Your task to perform on an android device: turn off location Image 0: 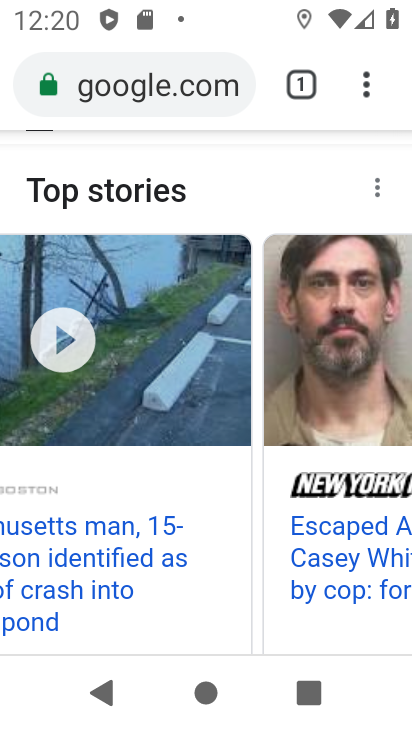
Step 0: press home button
Your task to perform on an android device: turn off location Image 1: 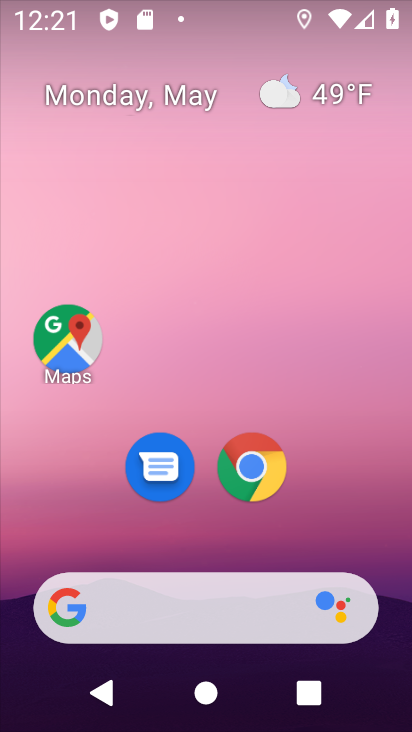
Step 1: drag from (378, 525) to (349, 121)
Your task to perform on an android device: turn off location Image 2: 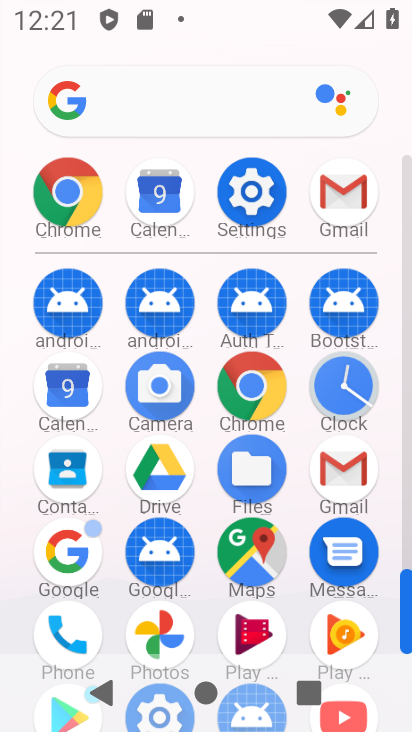
Step 2: click (270, 165)
Your task to perform on an android device: turn off location Image 3: 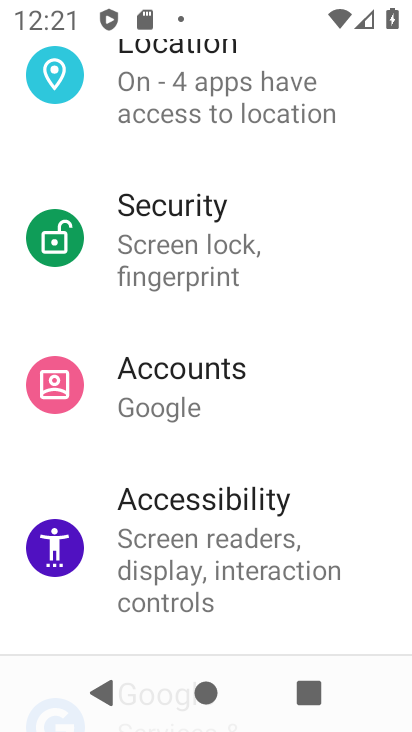
Step 3: drag from (270, 609) to (312, 297)
Your task to perform on an android device: turn off location Image 4: 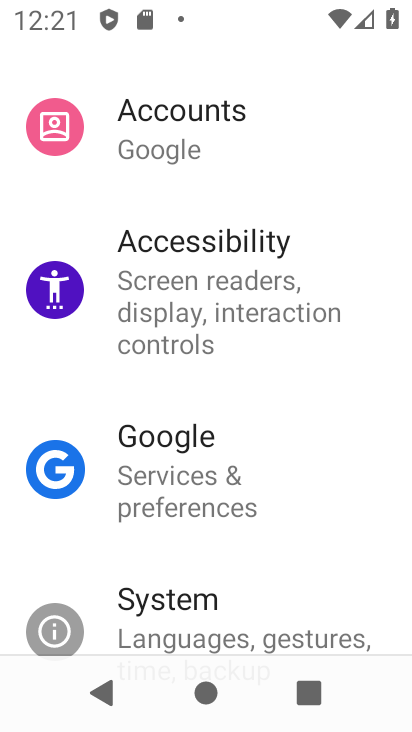
Step 4: drag from (288, 565) to (296, 312)
Your task to perform on an android device: turn off location Image 5: 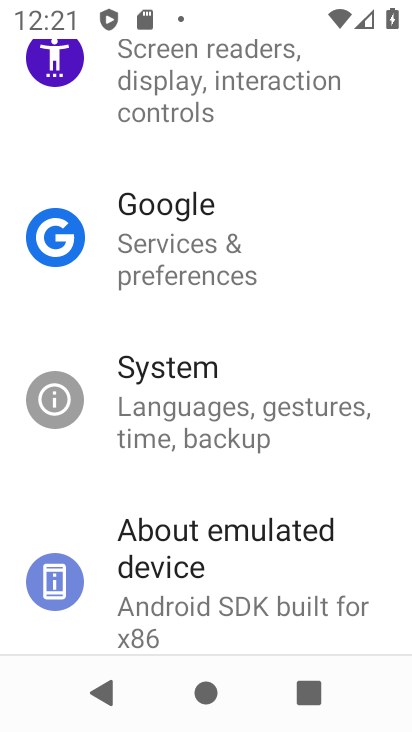
Step 5: drag from (280, 284) to (303, 532)
Your task to perform on an android device: turn off location Image 6: 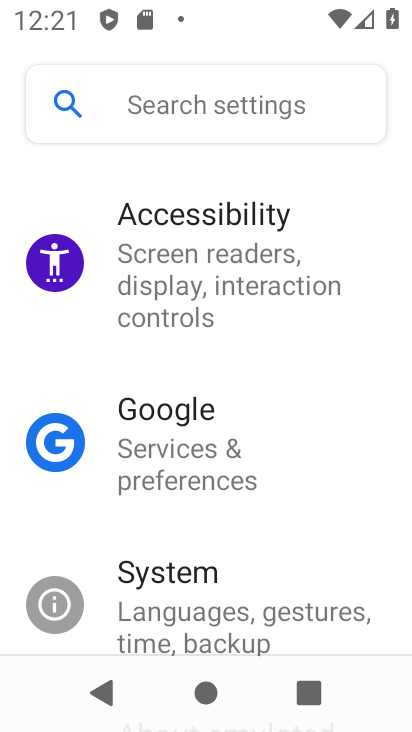
Step 6: drag from (293, 166) to (315, 493)
Your task to perform on an android device: turn off location Image 7: 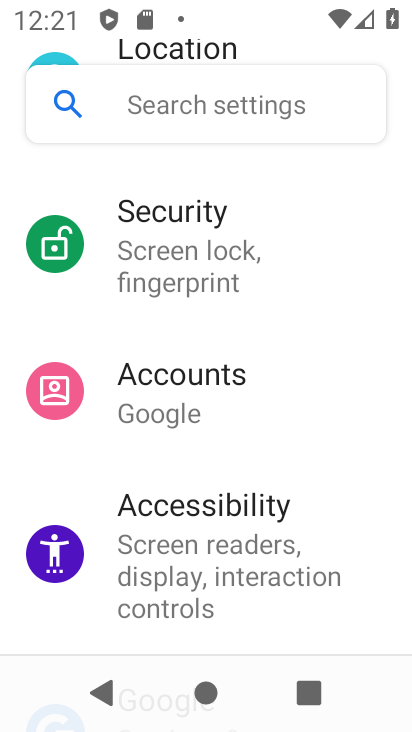
Step 7: drag from (256, 195) to (256, 465)
Your task to perform on an android device: turn off location Image 8: 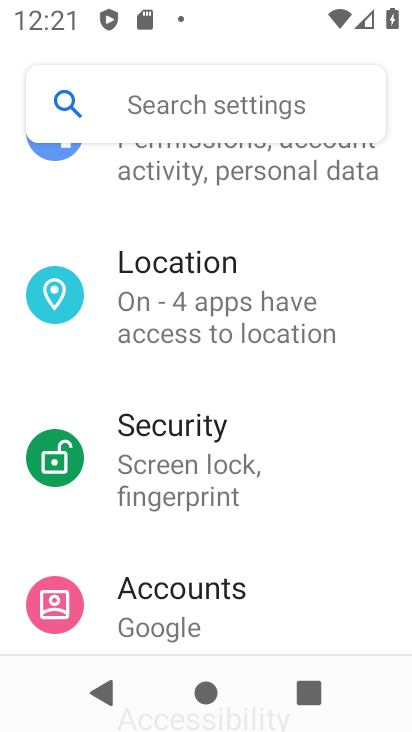
Step 8: click (206, 308)
Your task to perform on an android device: turn off location Image 9: 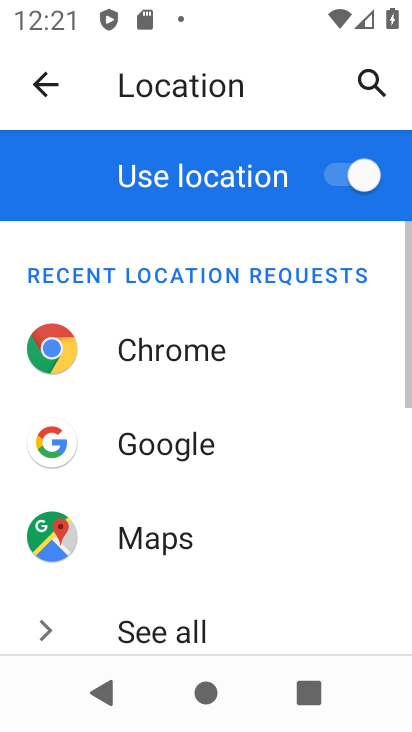
Step 9: drag from (225, 656) to (263, 377)
Your task to perform on an android device: turn off location Image 10: 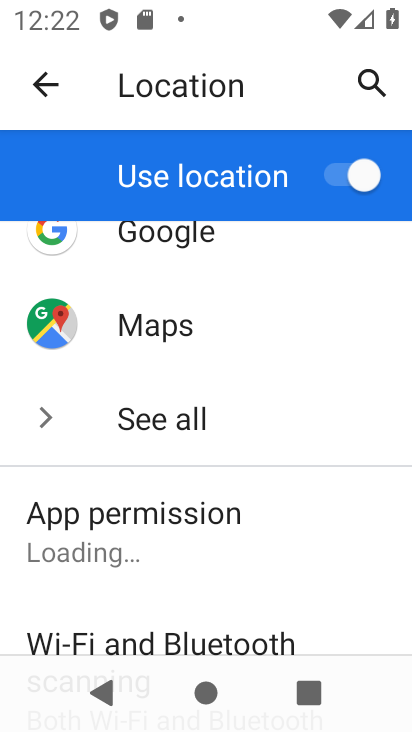
Step 10: drag from (271, 606) to (275, 356)
Your task to perform on an android device: turn off location Image 11: 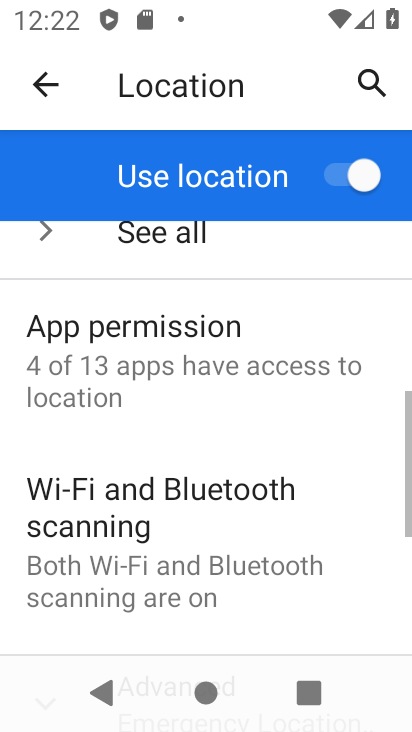
Step 11: drag from (292, 581) to (292, 306)
Your task to perform on an android device: turn off location Image 12: 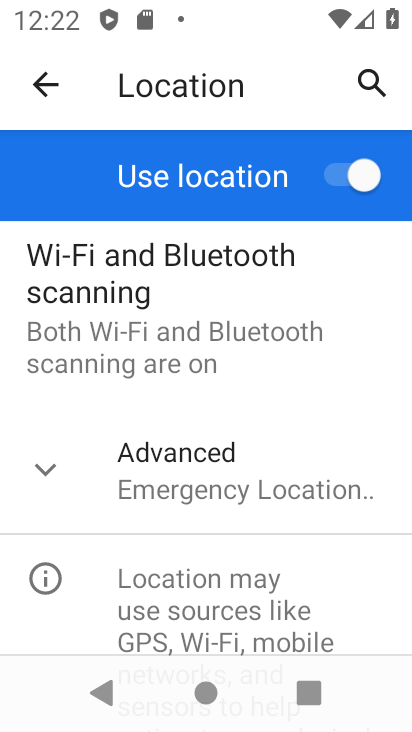
Step 12: click (332, 179)
Your task to perform on an android device: turn off location Image 13: 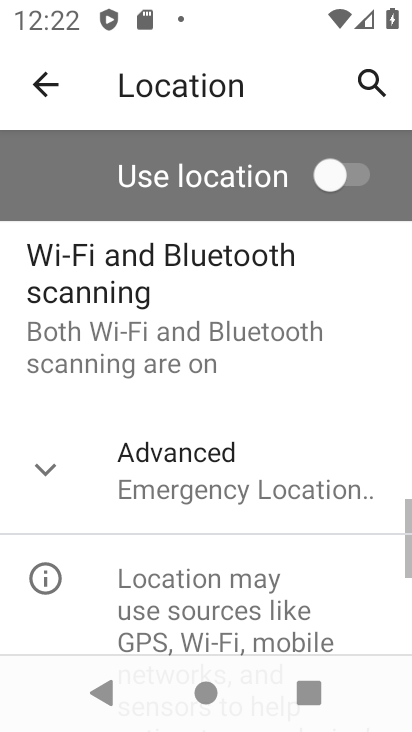
Step 13: task complete